Your task to perform on an android device: Go to network settings Image 0: 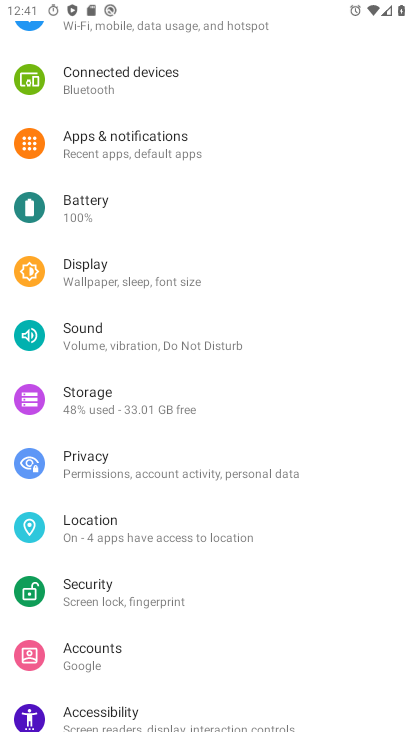
Step 0: press home button
Your task to perform on an android device: Go to network settings Image 1: 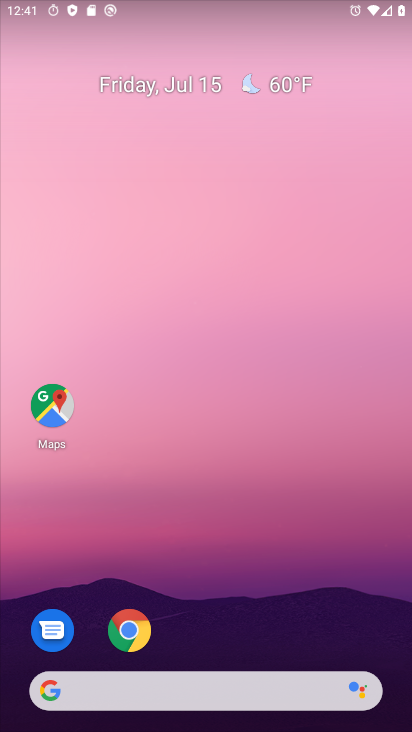
Step 1: drag from (202, 371) to (246, 123)
Your task to perform on an android device: Go to network settings Image 2: 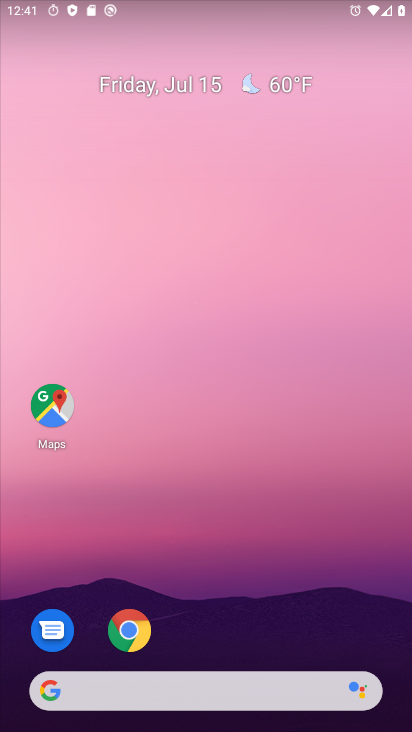
Step 2: drag from (200, 476) to (220, 11)
Your task to perform on an android device: Go to network settings Image 3: 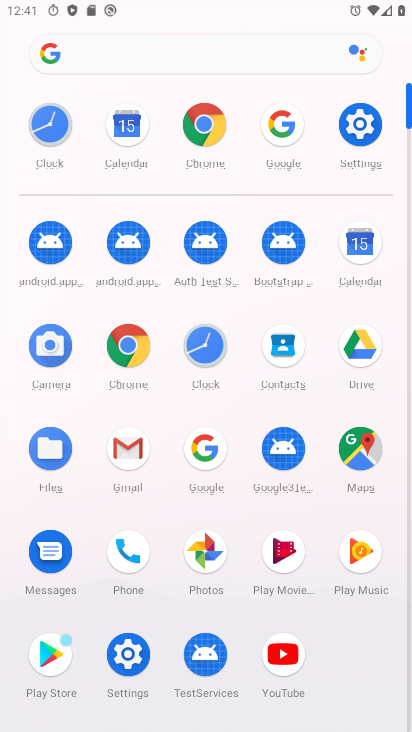
Step 3: click (358, 117)
Your task to perform on an android device: Go to network settings Image 4: 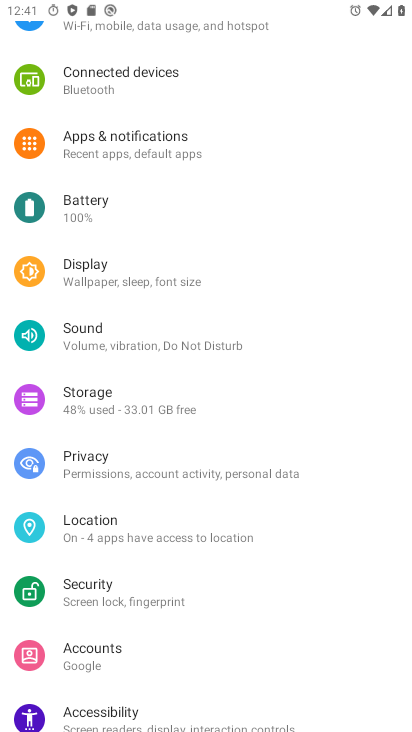
Step 4: click (113, 407)
Your task to perform on an android device: Go to network settings Image 5: 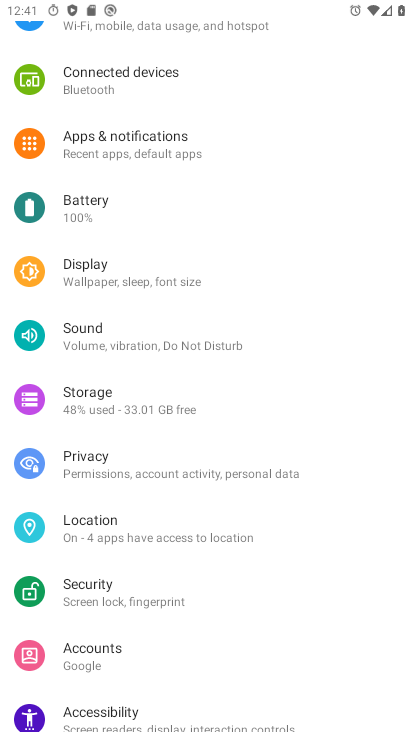
Step 5: click (163, 21)
Your task to perform on an android device: Go to network settings Image 6: 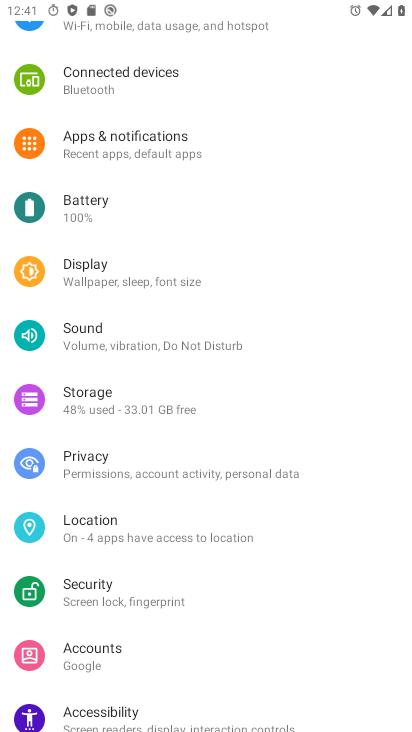
Step 6: click (152, 29)
Your task to perform on an android device: Go to network settings Image 7: 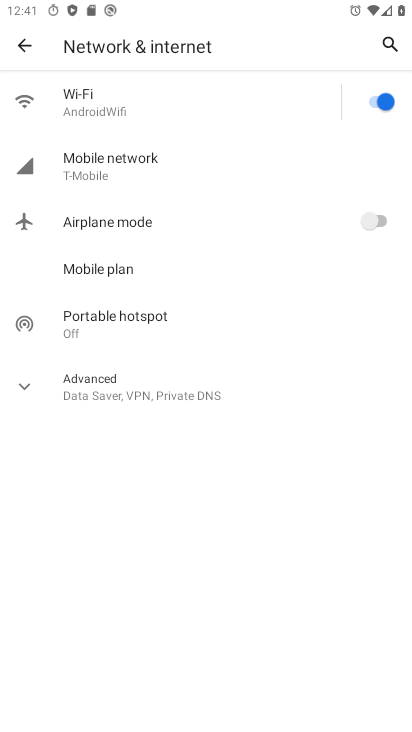
Step 7: task complete